Your task to perform on an android device: Show me popular videos on Youtube Image 0: 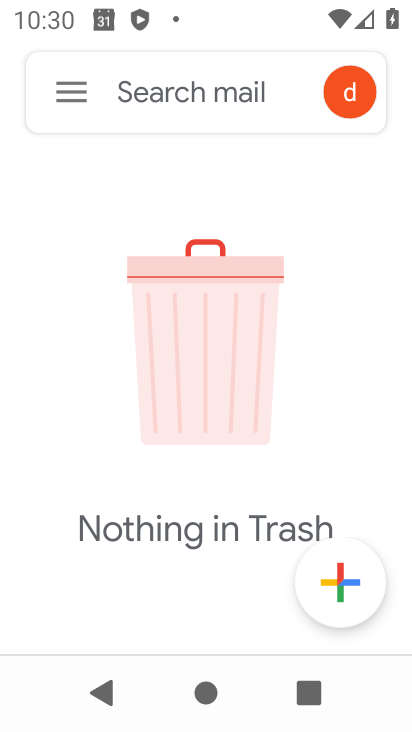
Step 0: press home button
Your task to perform on an android device: Show me popular videos on Youtube Image 1: 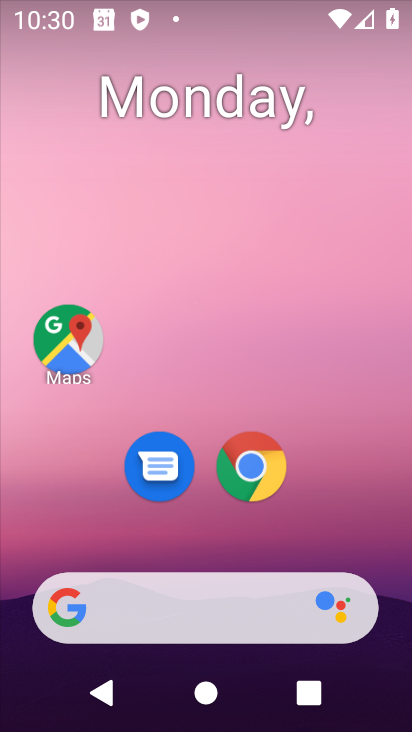
Step 1: drag from (282, 520) to (248, 86)
Your task to perform on an android device: Show me popular videos on Youtube Image 2: 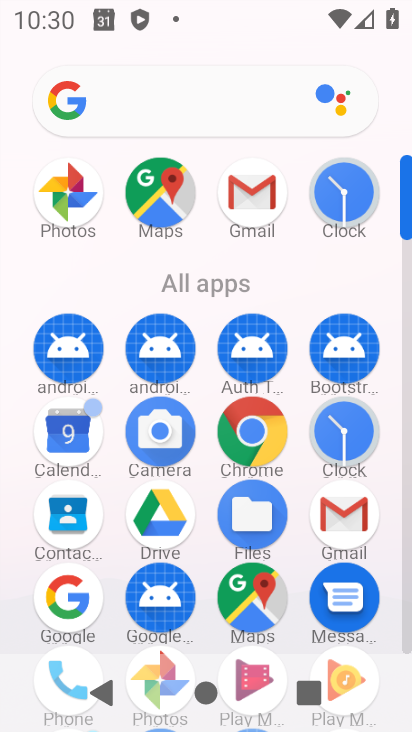
Step 2: drag from (198, 645) to (206, 342)
Your task to perform on an android device: Show me popular videos on Youtube Image 3: 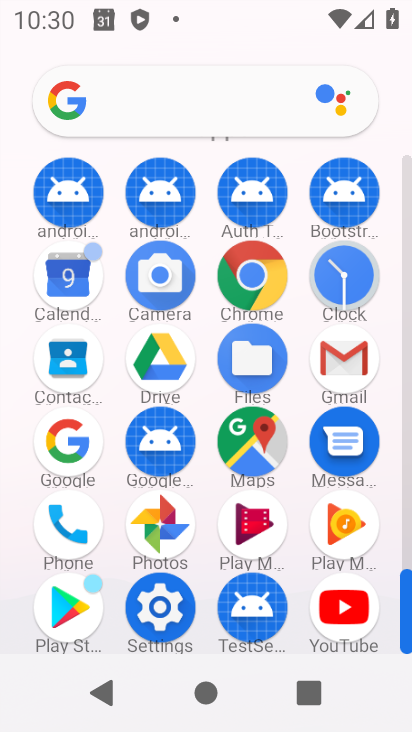
Step 3: click (350, 614)
Your task to perform on an android device: Show me popular videos on Youtube Image 4: 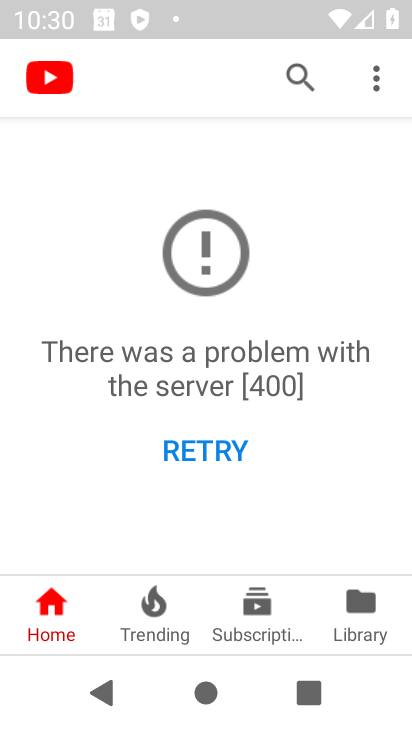
Step 4: click (155, 622)
Your task to perform on an android device: Show me popular videos on Youtube Image 5: 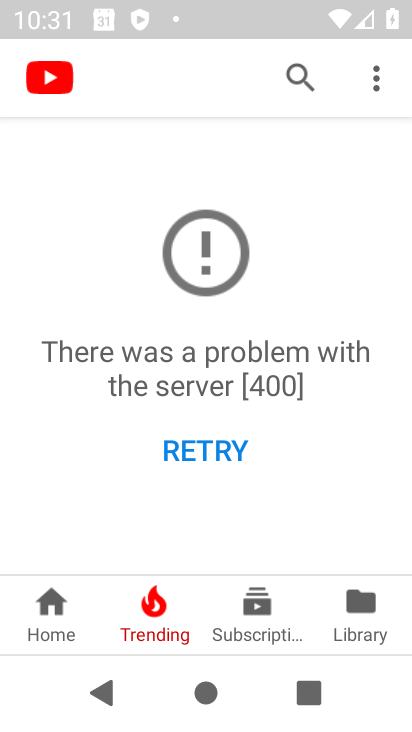
Step 5: task complete